Your task to perform on an android device: Go to ESPN.com Image 0: 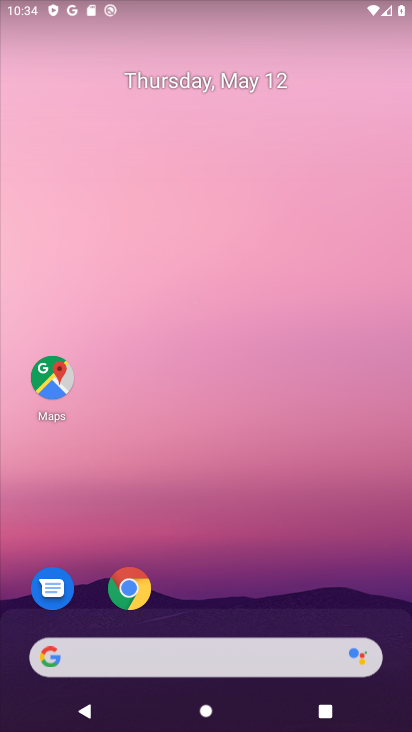
Step 0: click (155, 661)
Your task to perform on an android device: Go to ESPN.com Image 1: 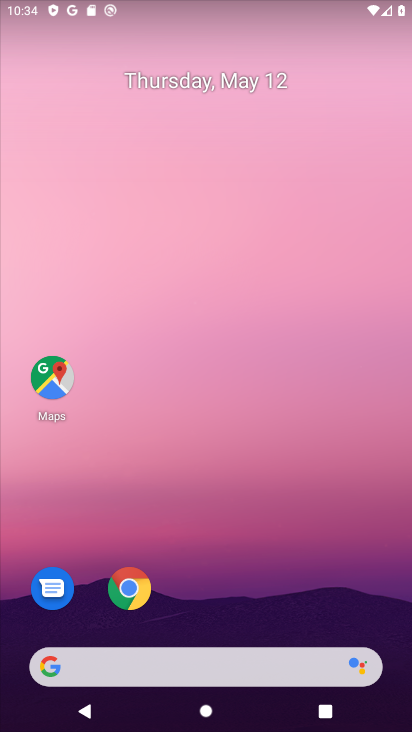
Step 1: type "ES"
Your task to perform on an android device: Go to ESPN.com Image 2: 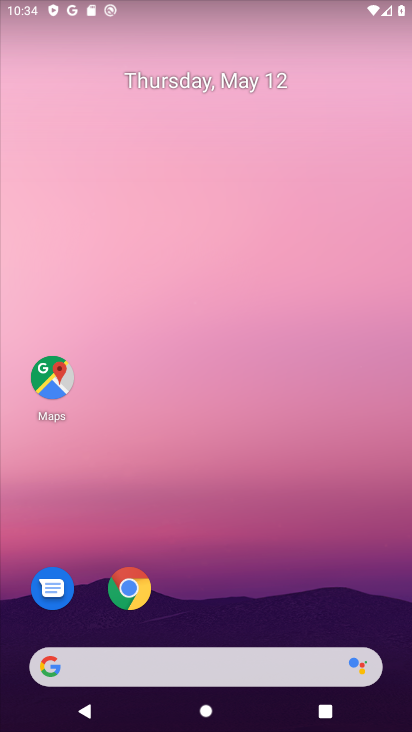
Step 2: click (116, 578)
Your task to perform on an android device: Go to ESPN.com Image 3: 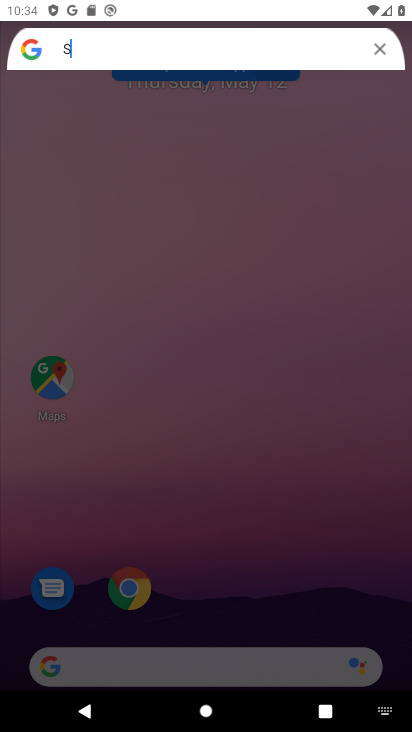
Step 3: click (134, 597)
Your task to perform on an android device: Go to ESPN.com Image 4: 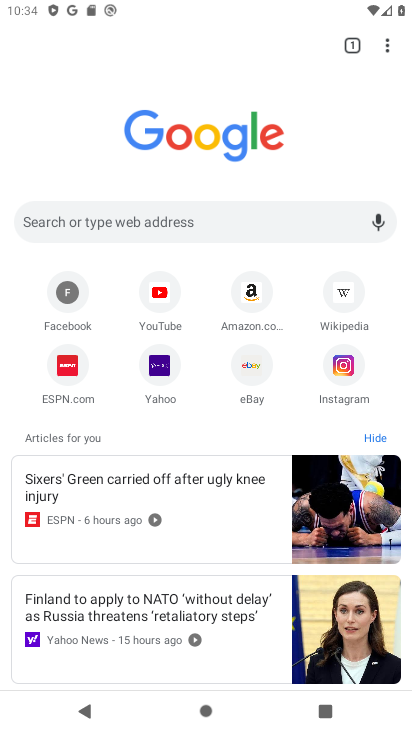
Step 4: click (78, 366)
Your task to perform on an android device: Go to ESPN.com Image 5: 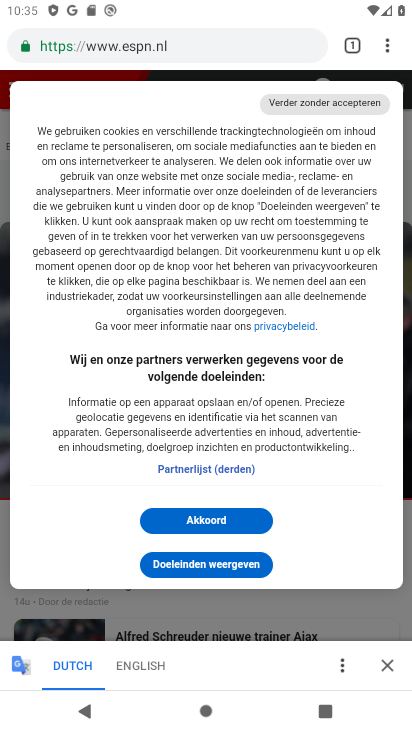
Step 5: task complete